Your task to perform on an android device: Open Yahoo.com Image 0: 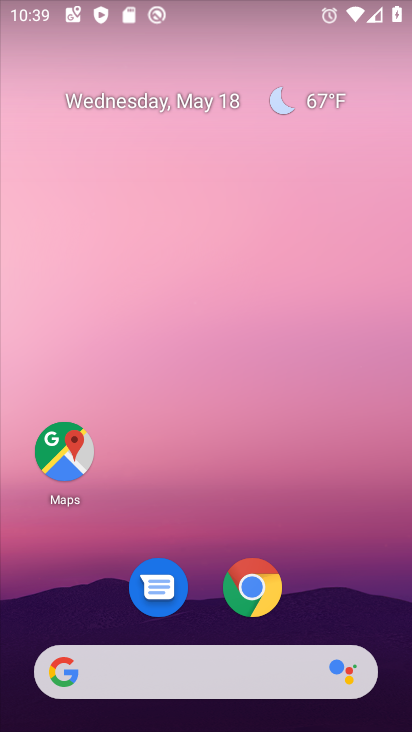
Step 0: click (249, 583)
Your task to perform on an android device: Open Yahoo.com Image 1: 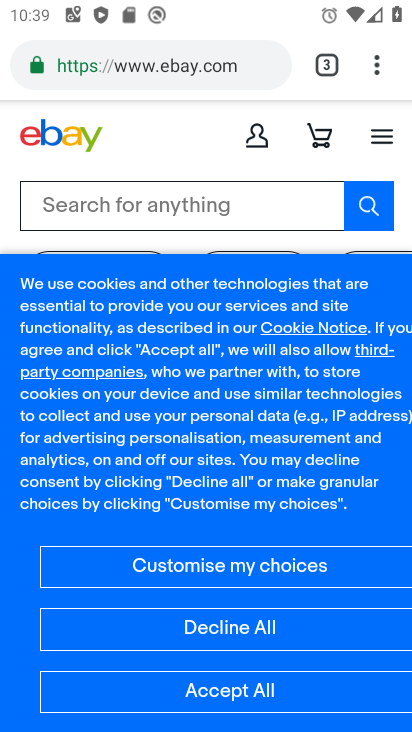
Step 1: click (325, 66)
Your task to perform on an android device: Open Yahoo.com Image 2: 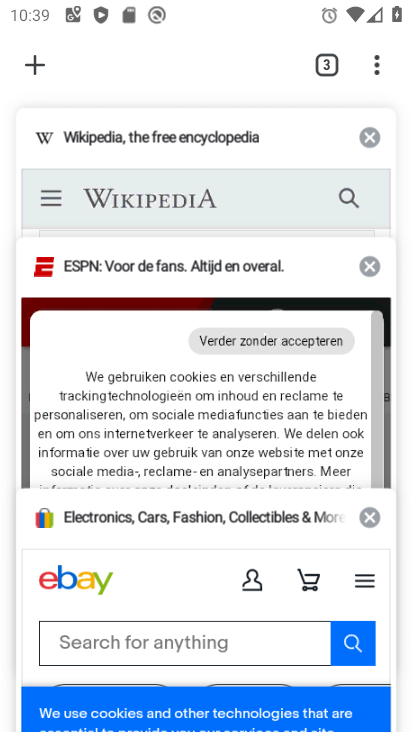
Step 2: click (36, 58)
Your task to perform on an android device: Open Yahoo.com Image 3: 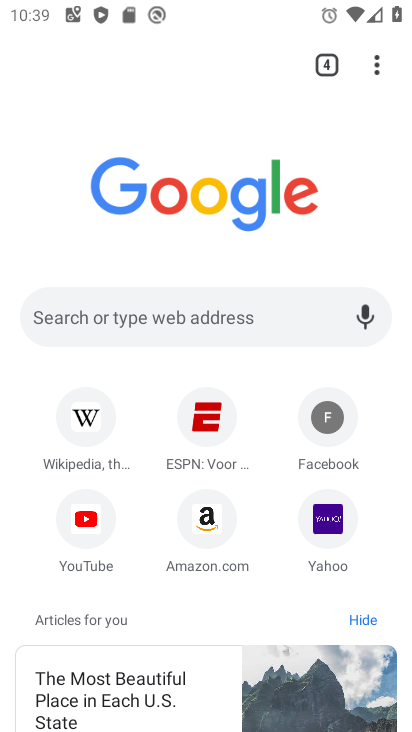
Step 3: click (331, 510)
Your task to perform on an android device: Open Yahoo.com Image 4: 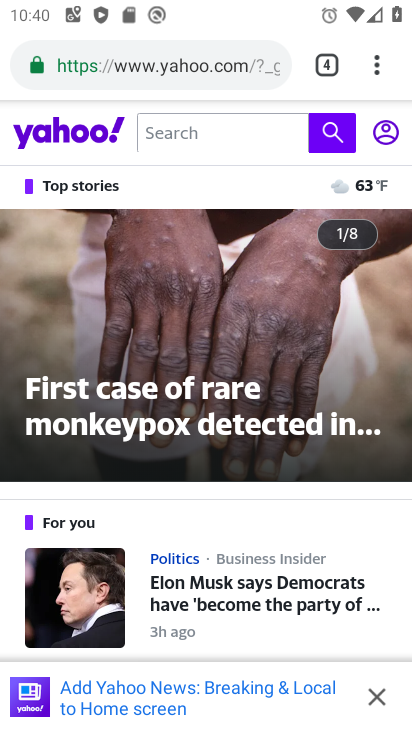
Step 4: task complete